Your task to perform on an android device: clear history in the chrome app Image 0: 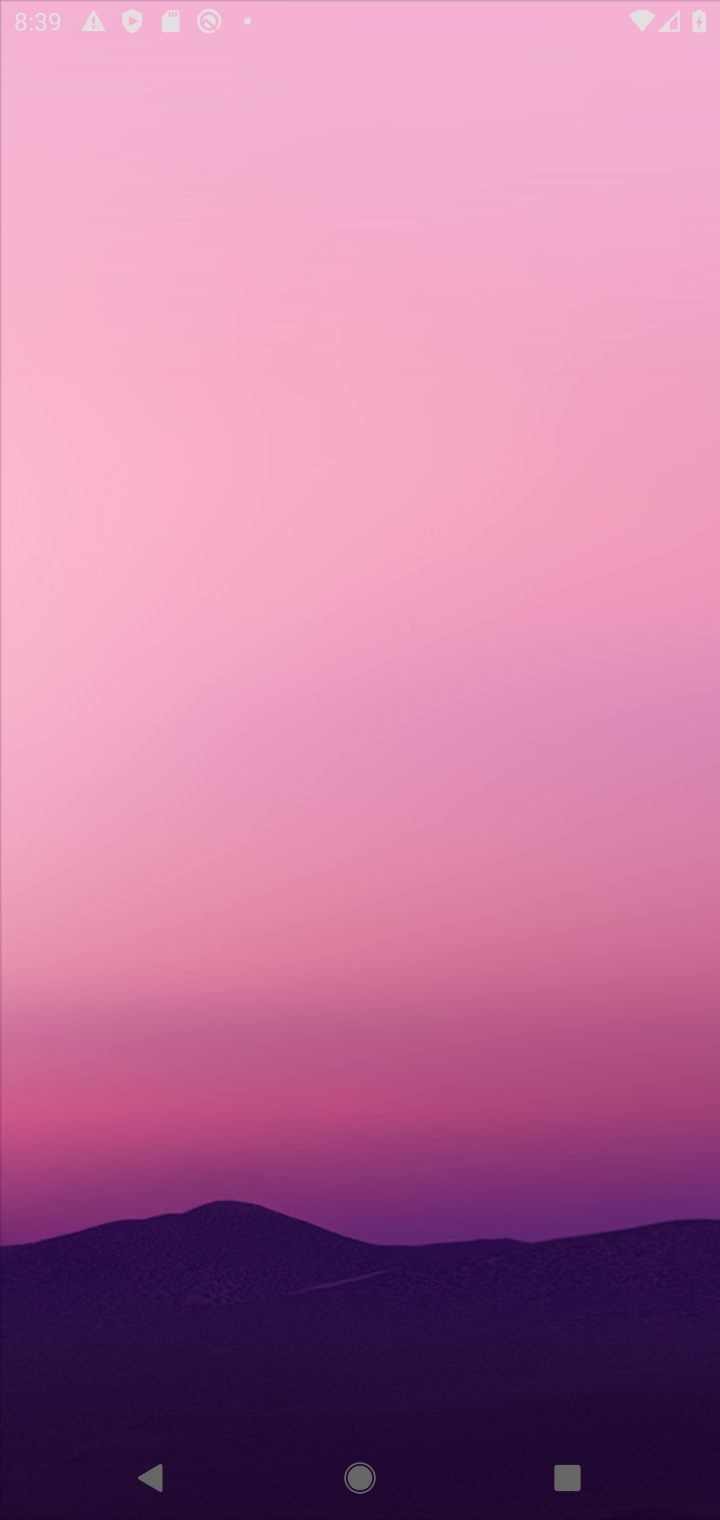
Step 0: press home button
Your task to perform on an android device: clear history in the chrome app Image 1: 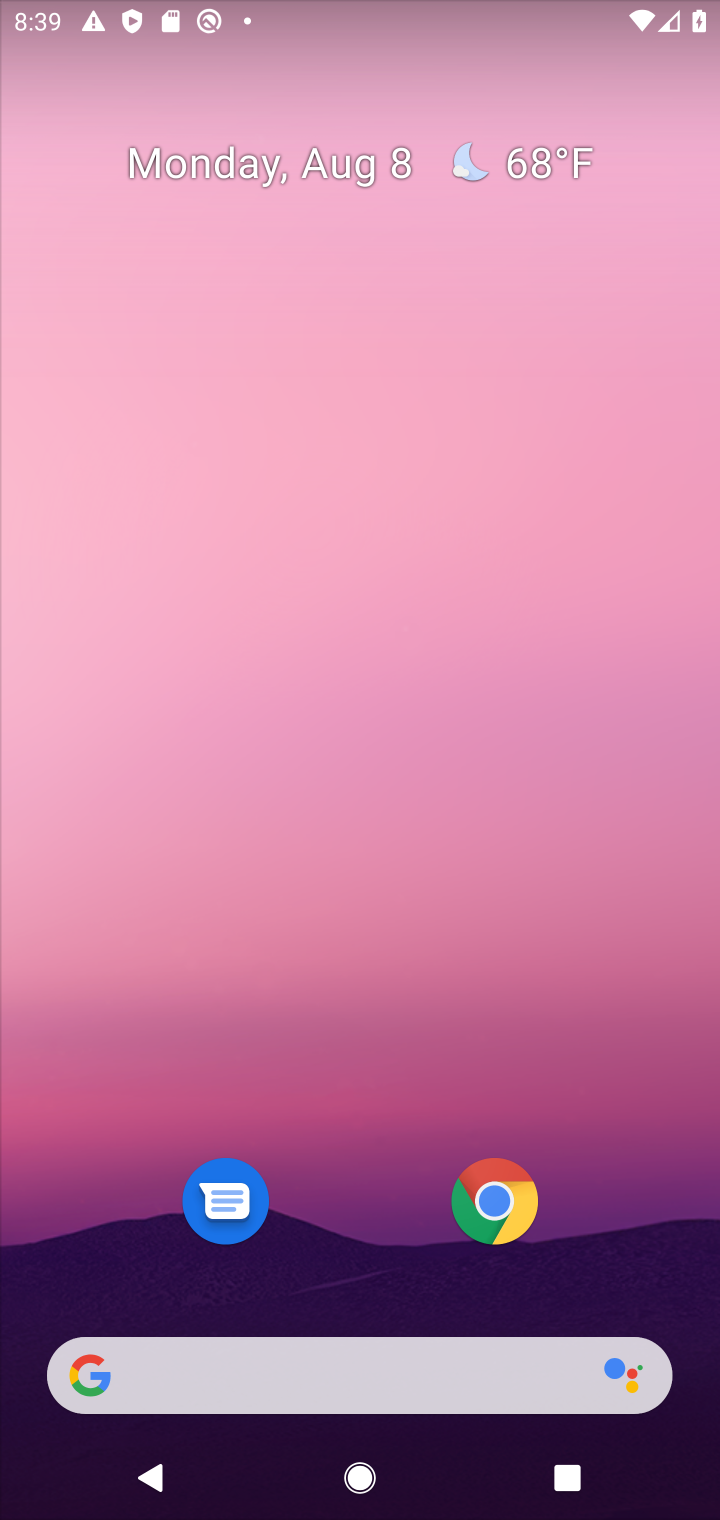
Step 1: drag from (381, 1064) to (469, 127)
Your task to perform on an android device: clear history in the chrome app Image 2: 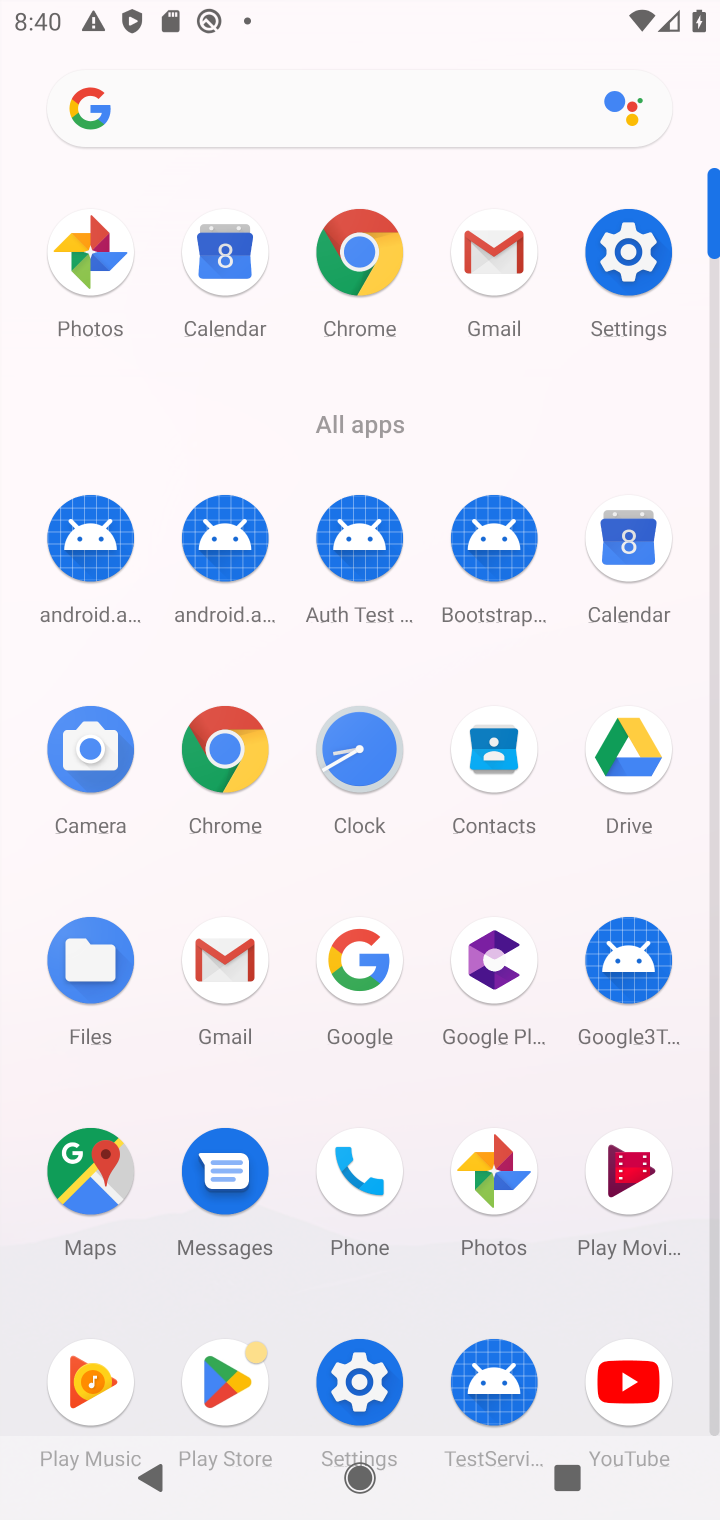
Step 2: click (211, 739)
Your task to perform on an android device: clear history in the chrome app Image 3: 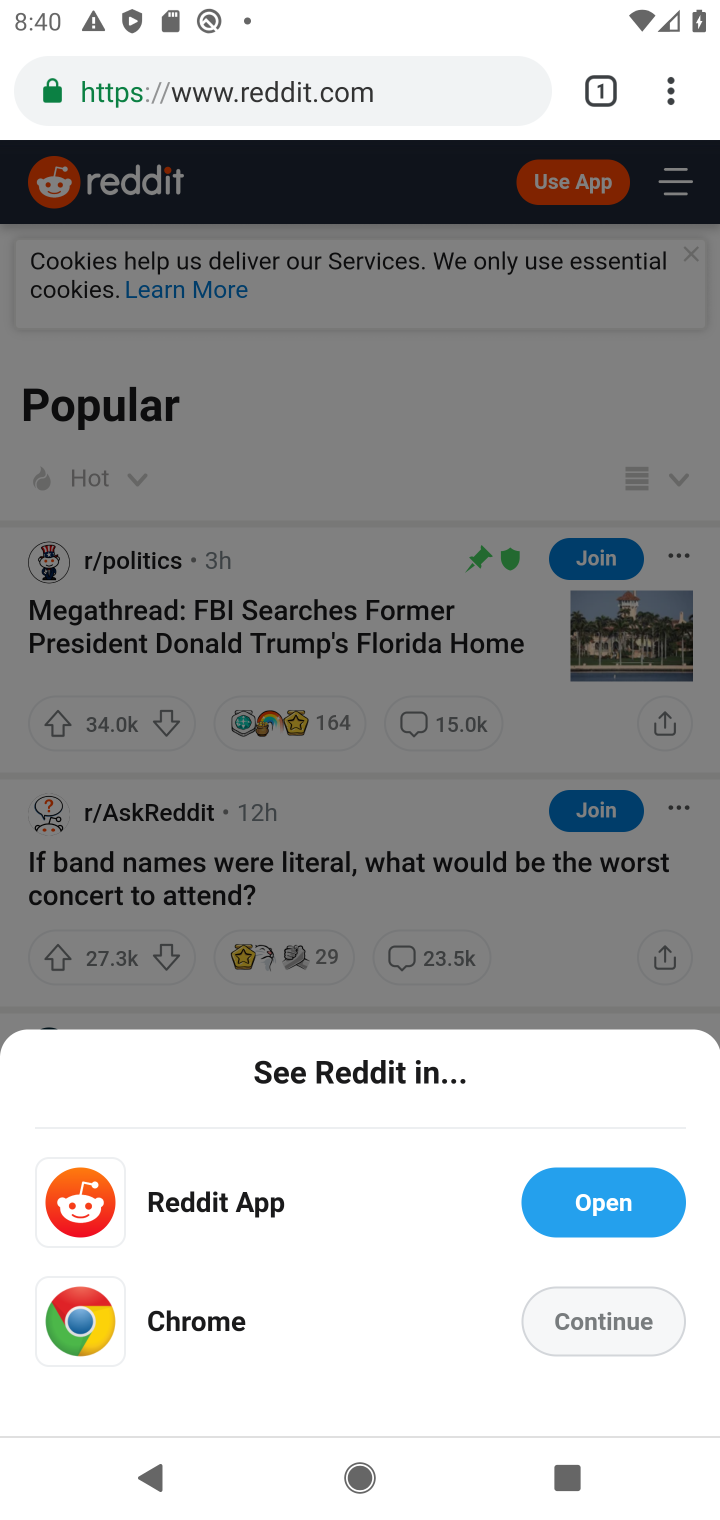
Step 3: click (669, 97)
Your task to perform on an android device: clear history in the chrome app Image 4: 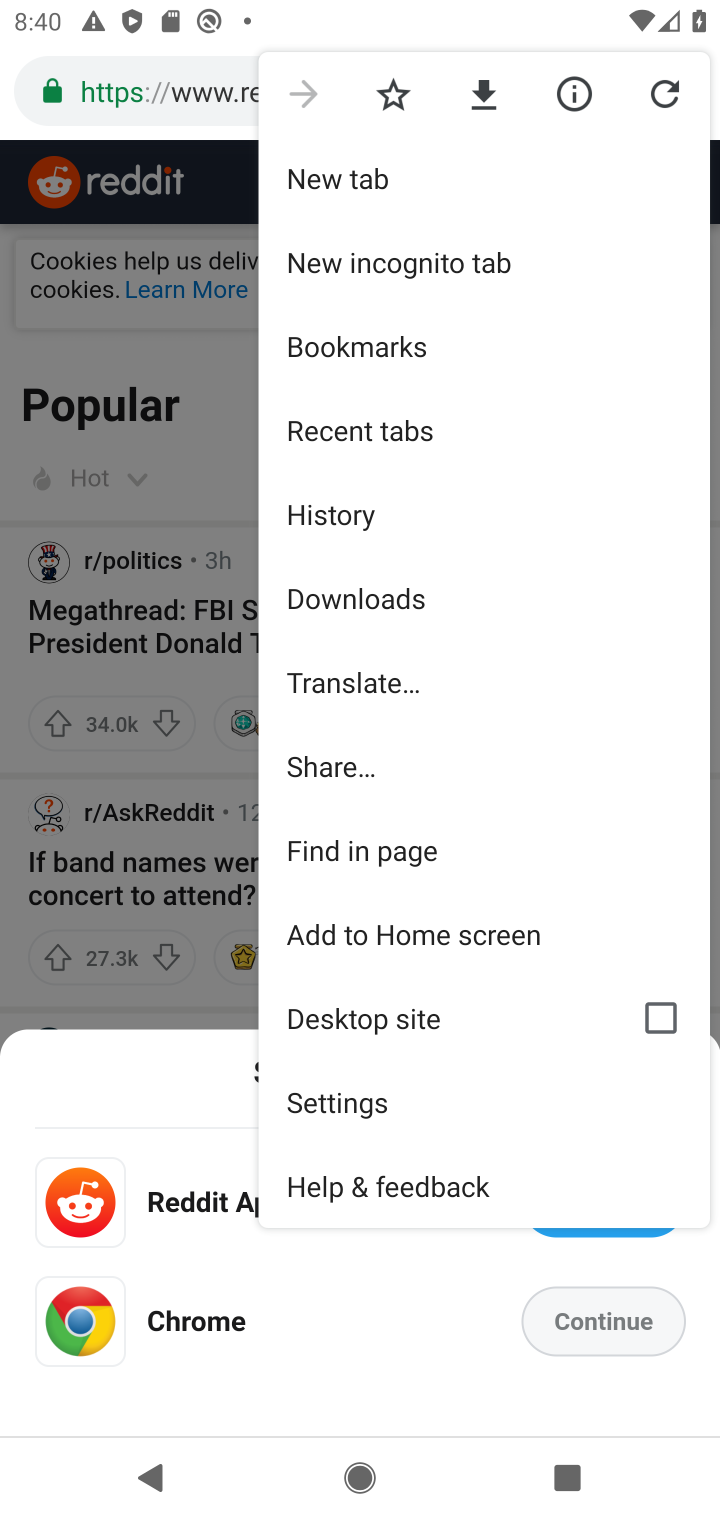
Step 4: click (400, 507)
Your task to perform on an android device: clear history in the chrome app Image 5: 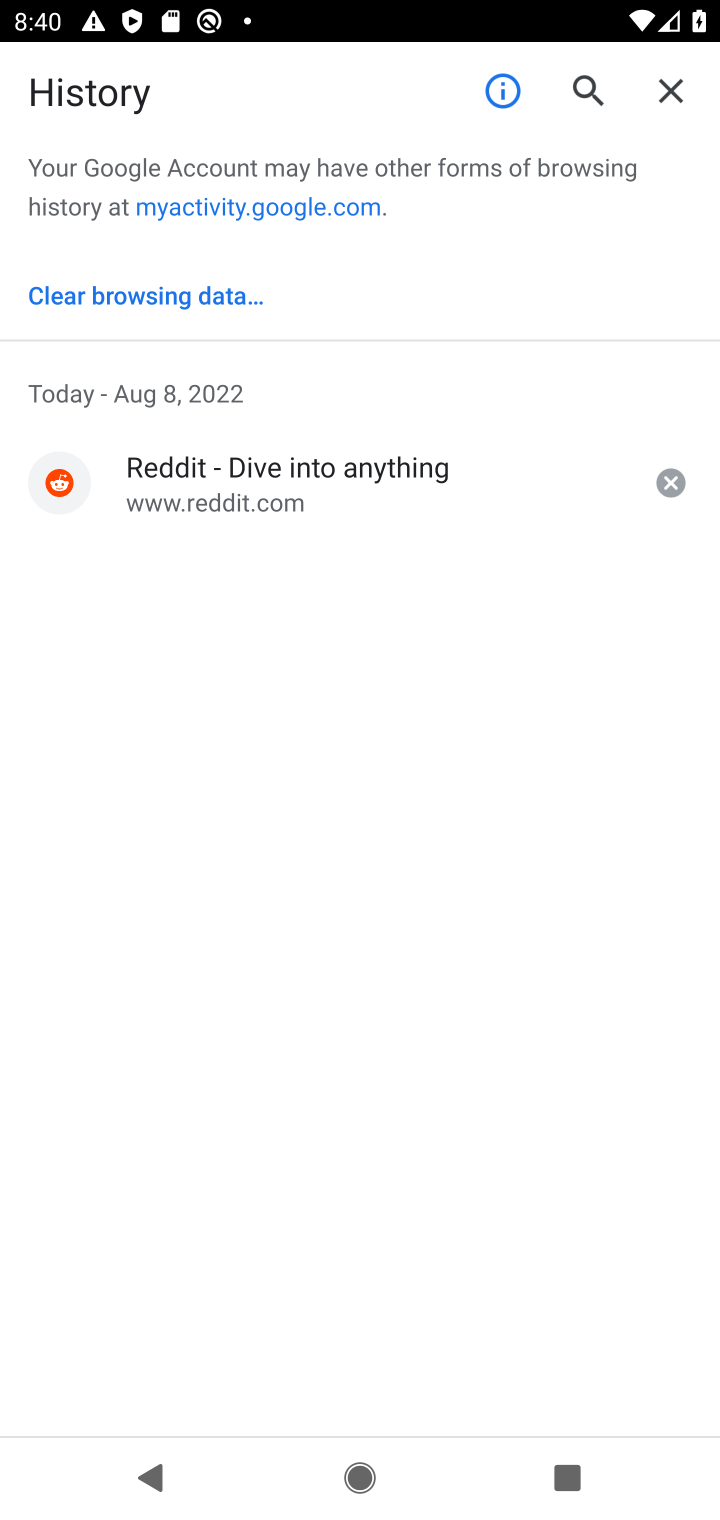
Step 5: click (226, 296)
Your task to perform on an android device: clear history in the chrome app Image 6: 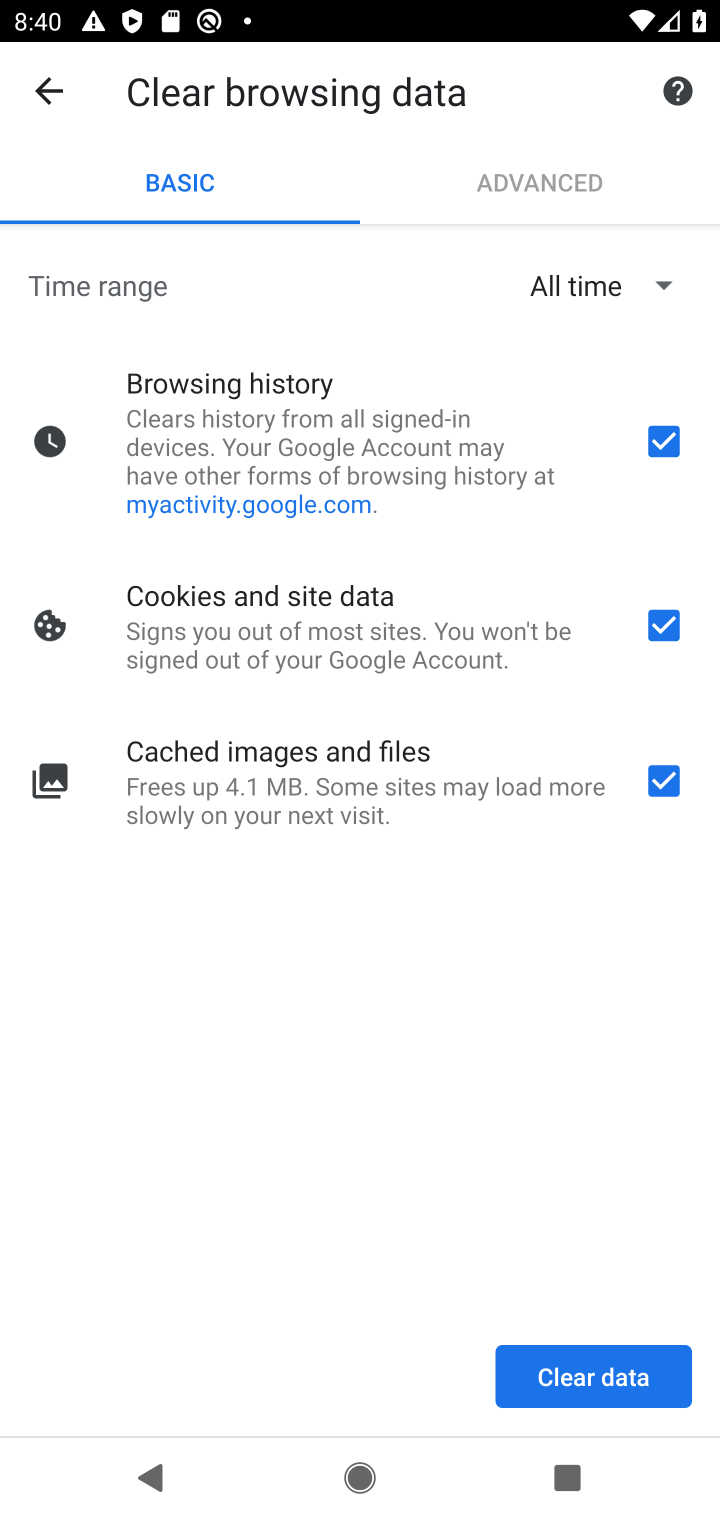
Step 6: click (614, 1359)
Your task to perform on an android device: clear history in the chrome app Image 7: 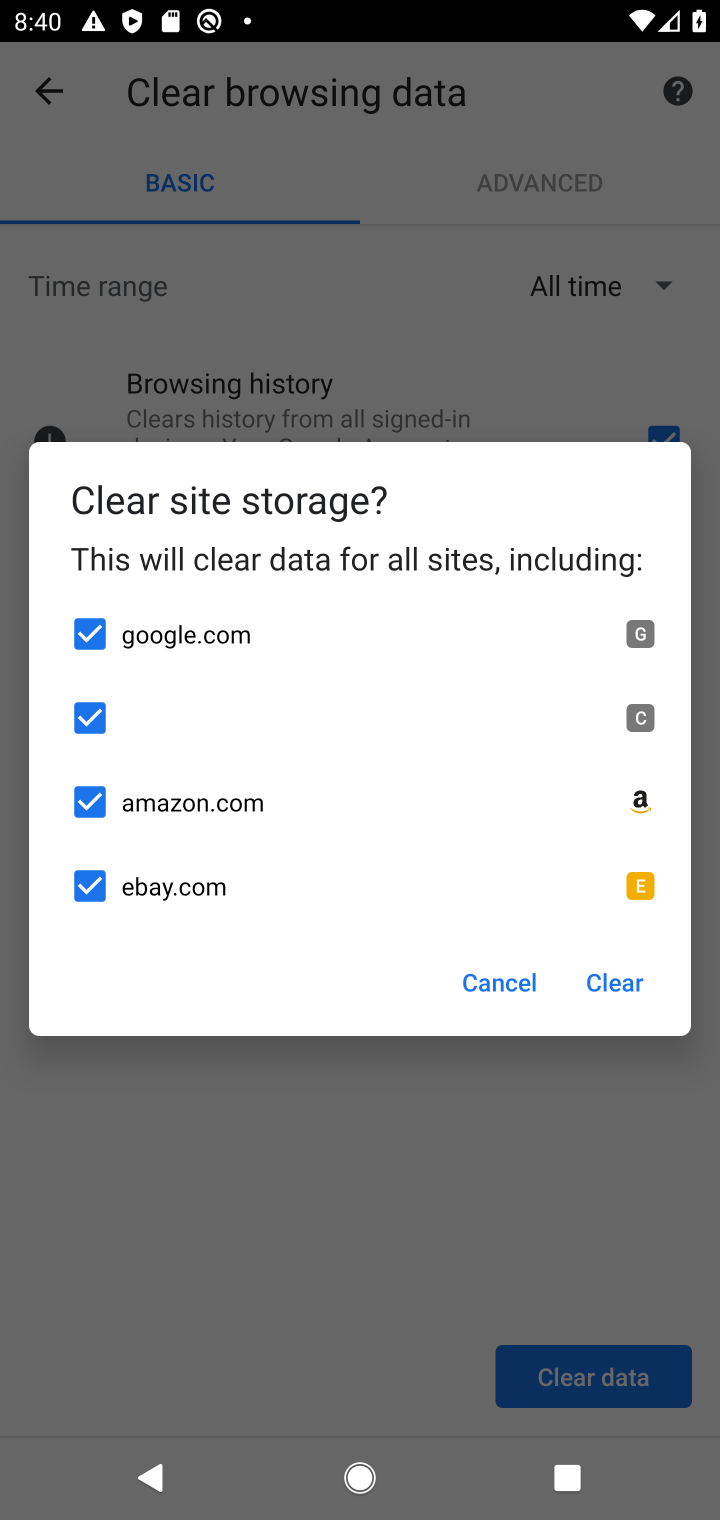
Step 7: click (608, 977)
Your task to perform on an android device: clear history in the chrome app Image 8: 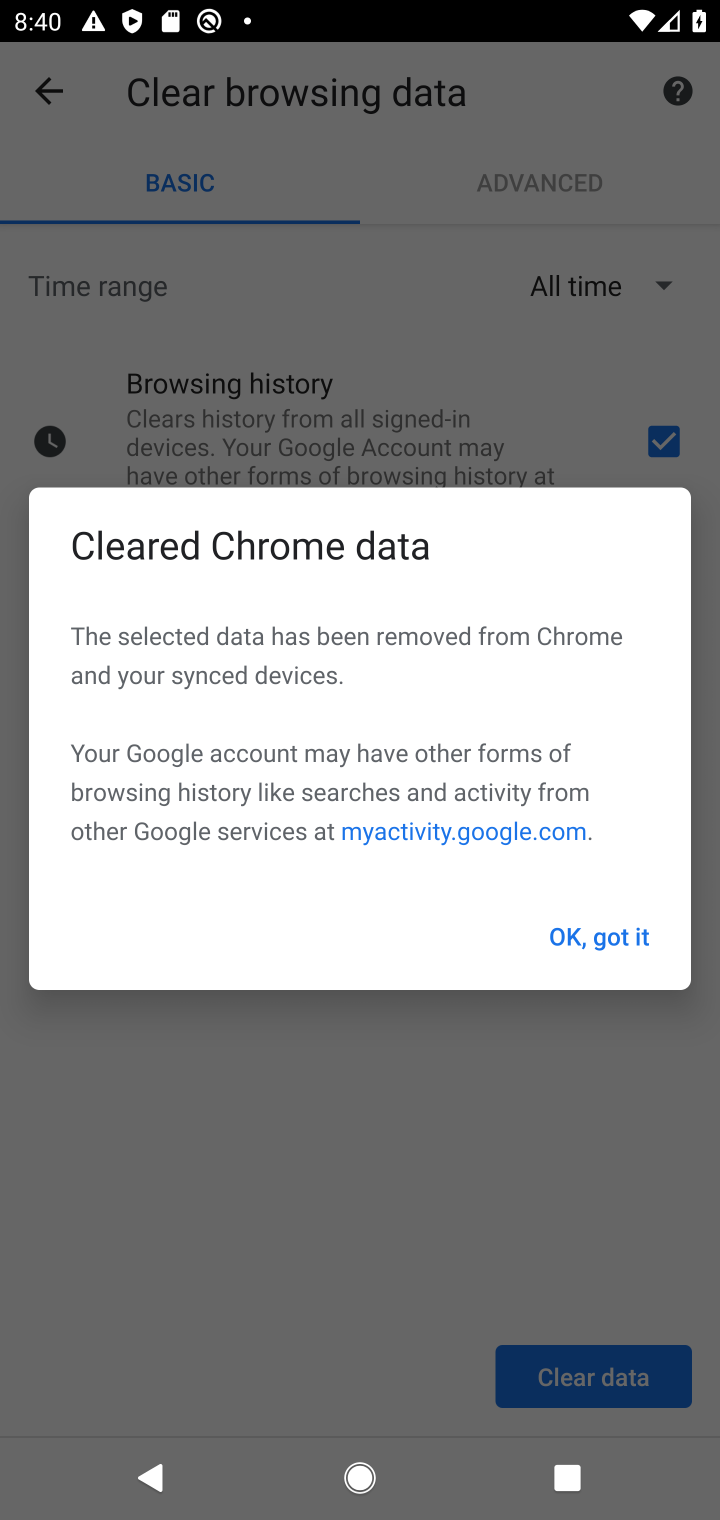
Step 8: click (605, 934)
Your task to perform on an android device: clear history in the chrome app Image 9: 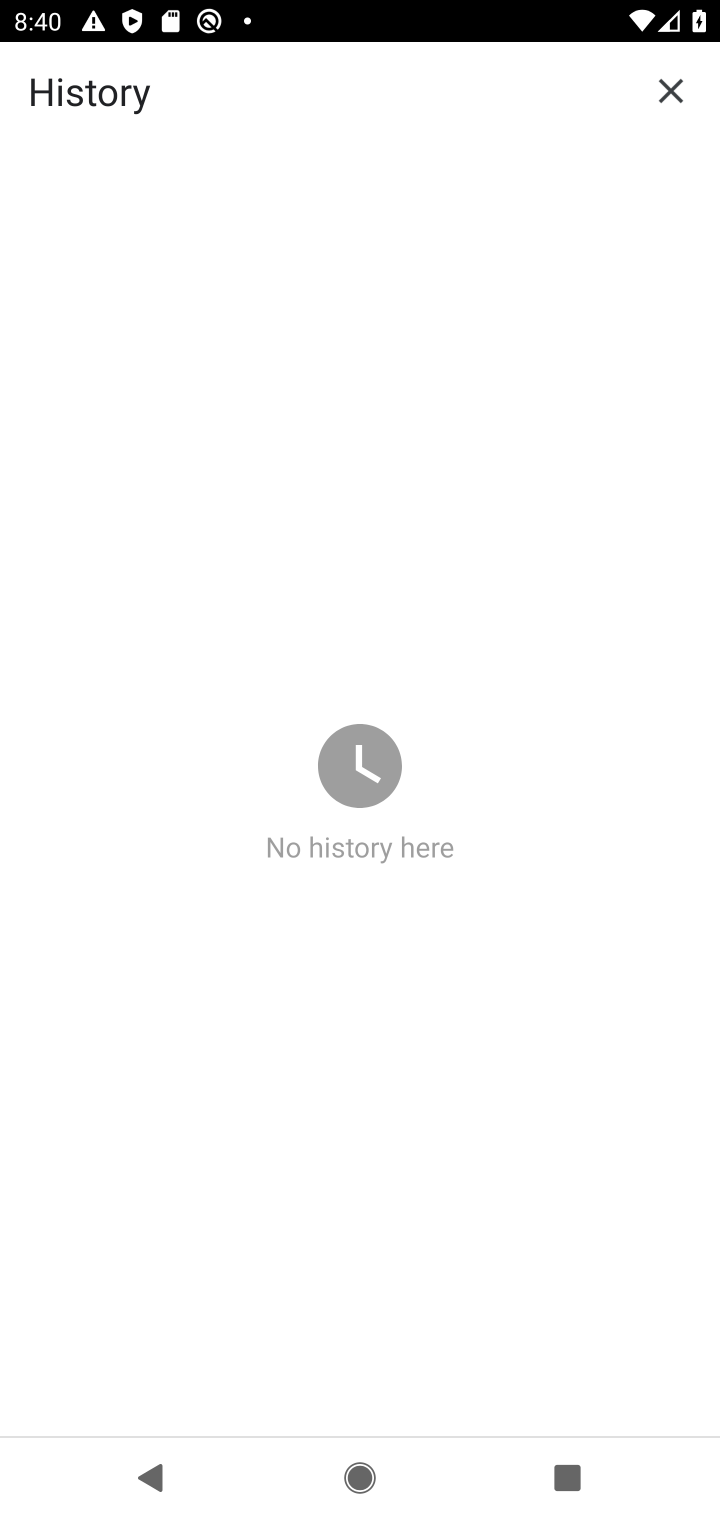
Step 9: task complete